Your task to perform on an android device: clear history in the chrome app Image 0: 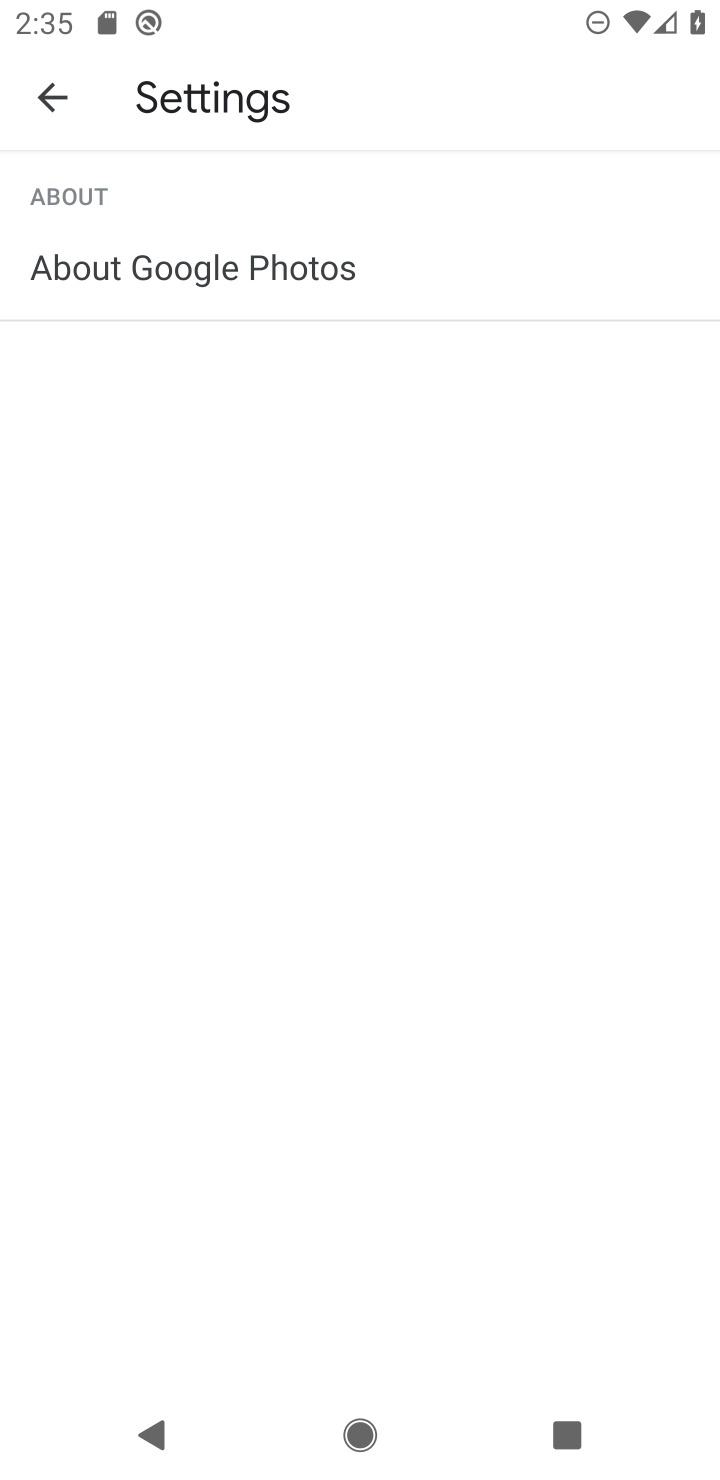
Step 0: press home button
Your task to perform on an android device: clear history in the chrome app Image 1: 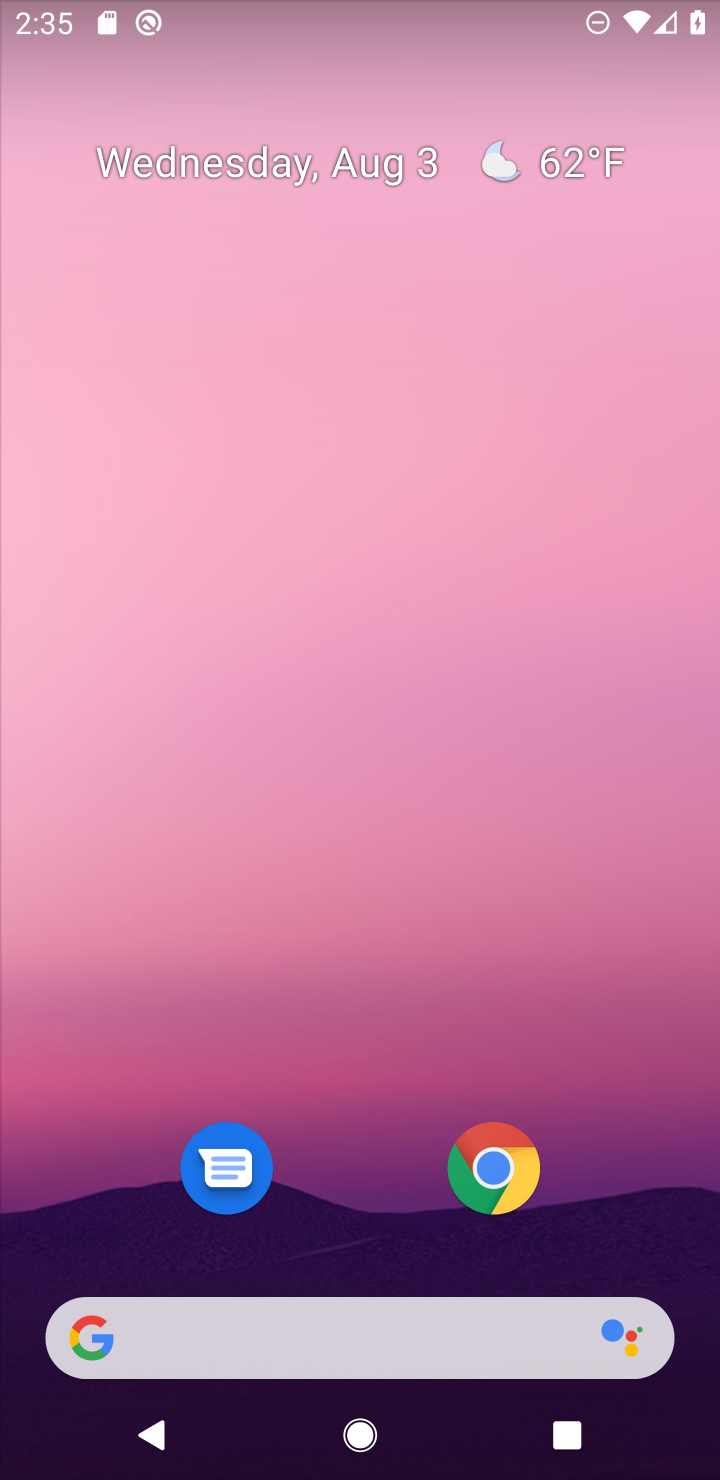
Step 1: click (479, 1173)
Your task to perform on an android device: clear history in the chrome app Image 2: 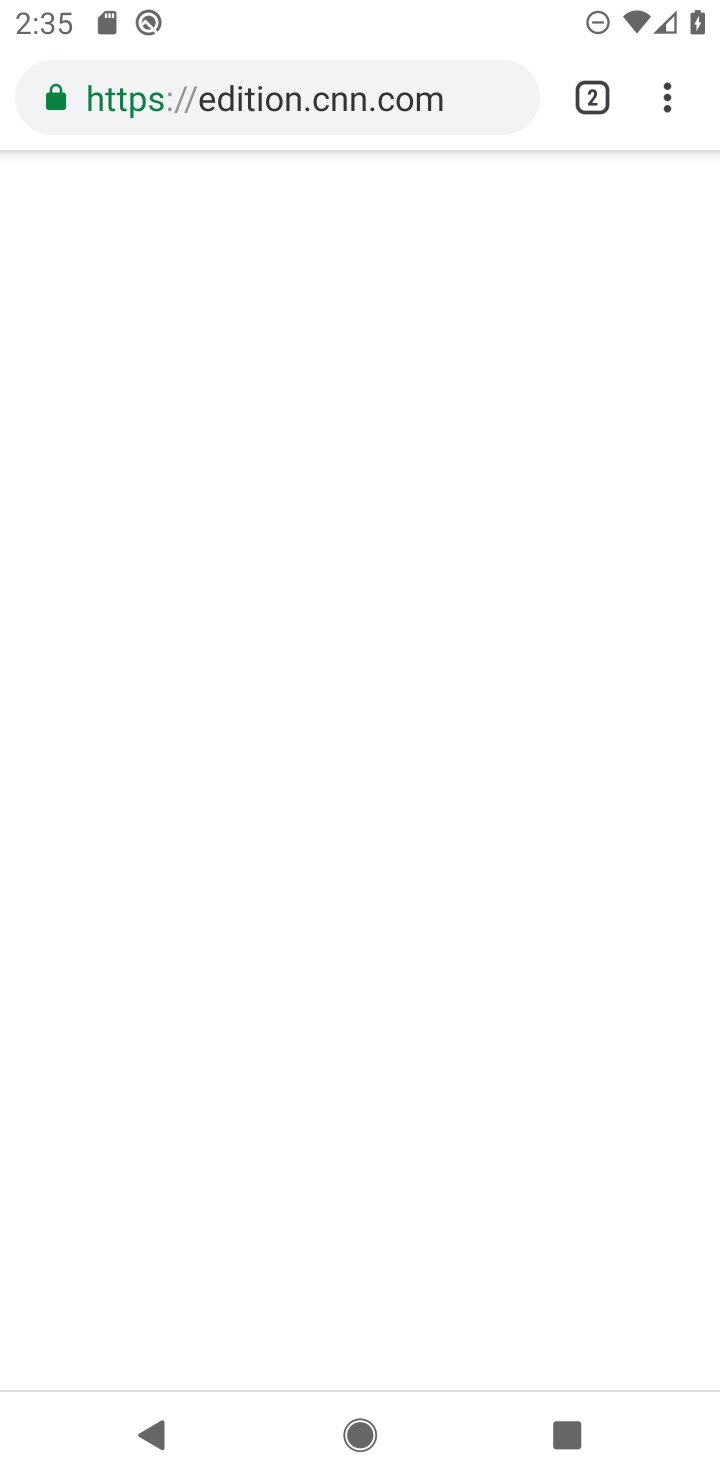
Step 2: click (657, 112)
Your task to perform on an android device: clear history in the chrome app Image 3: 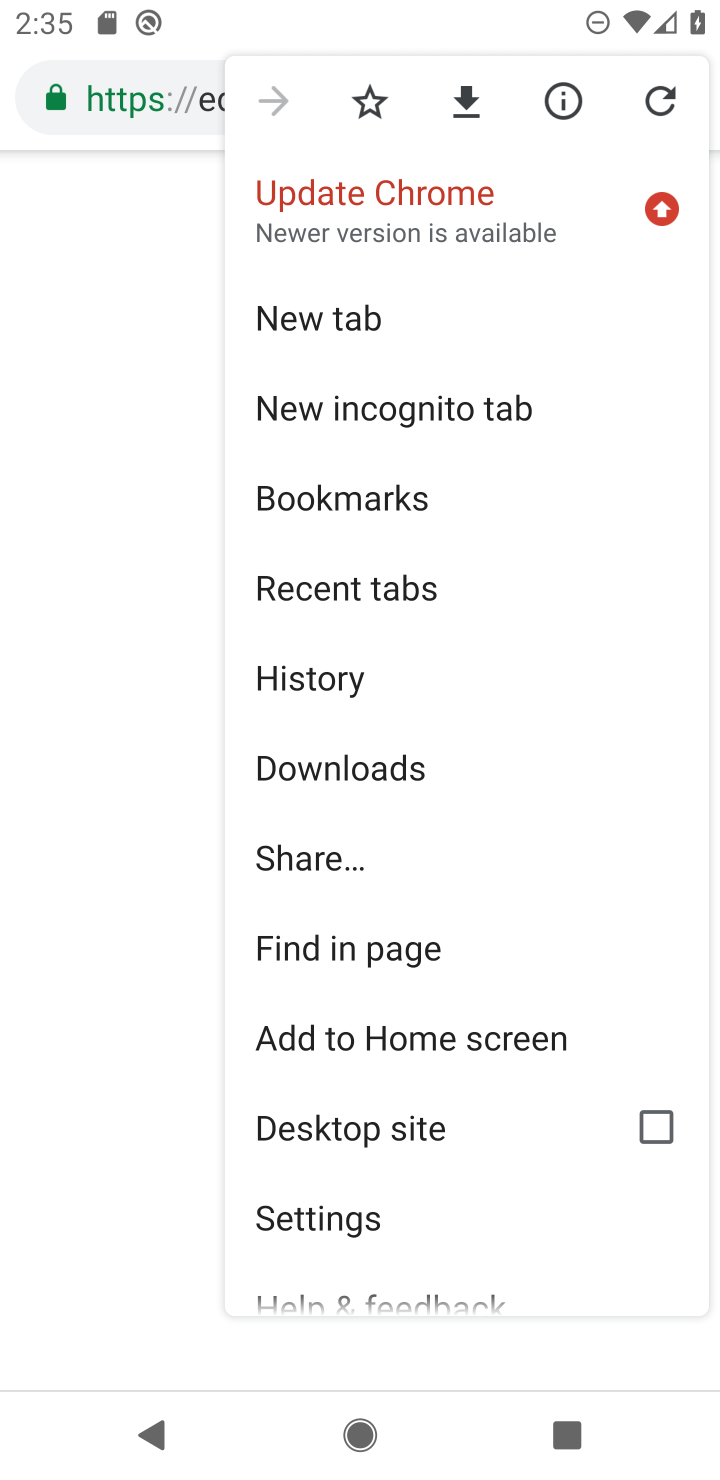
Step 3: click (323, 674)
Your task to perform on an android device: clear history in the chrome app Image 4: 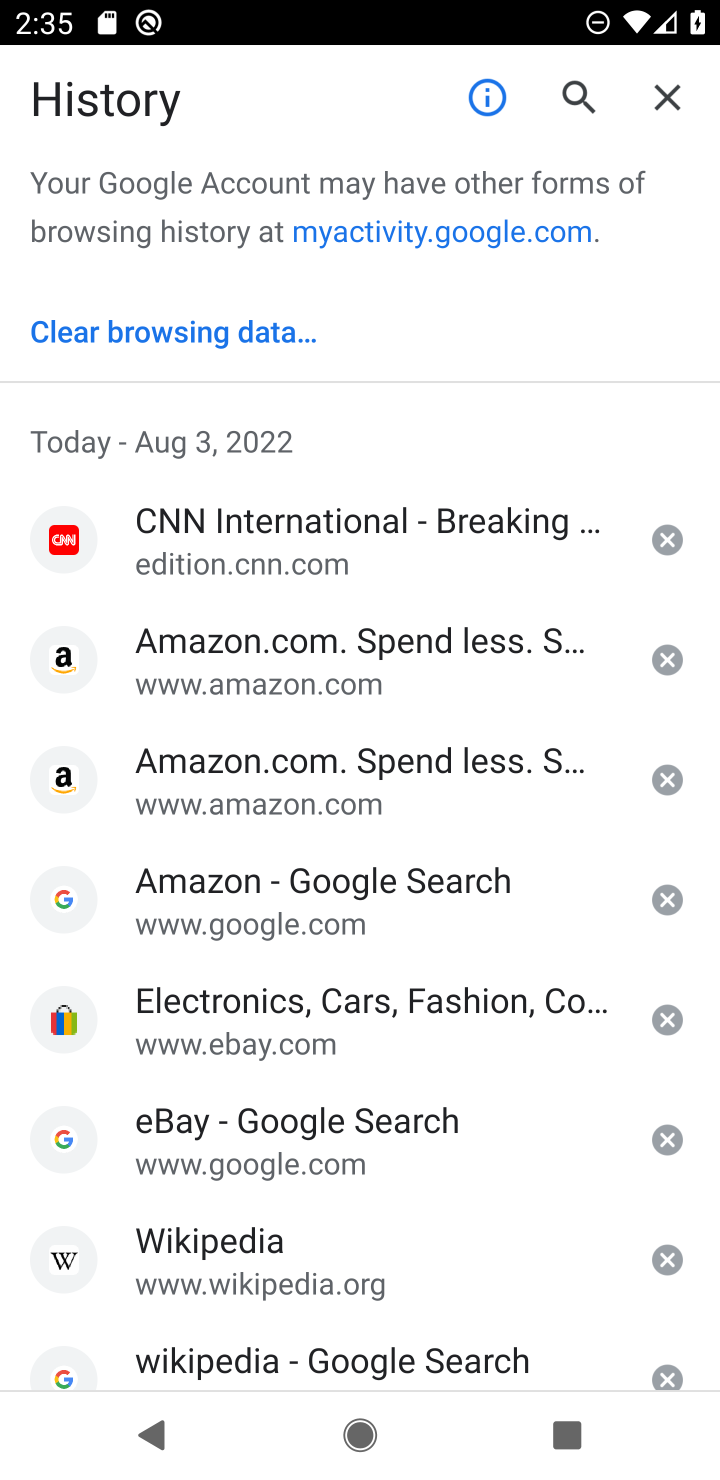
Step 4: click (163, 332)
Your task to perform on an android device: clear history in the chrome app Image 5: 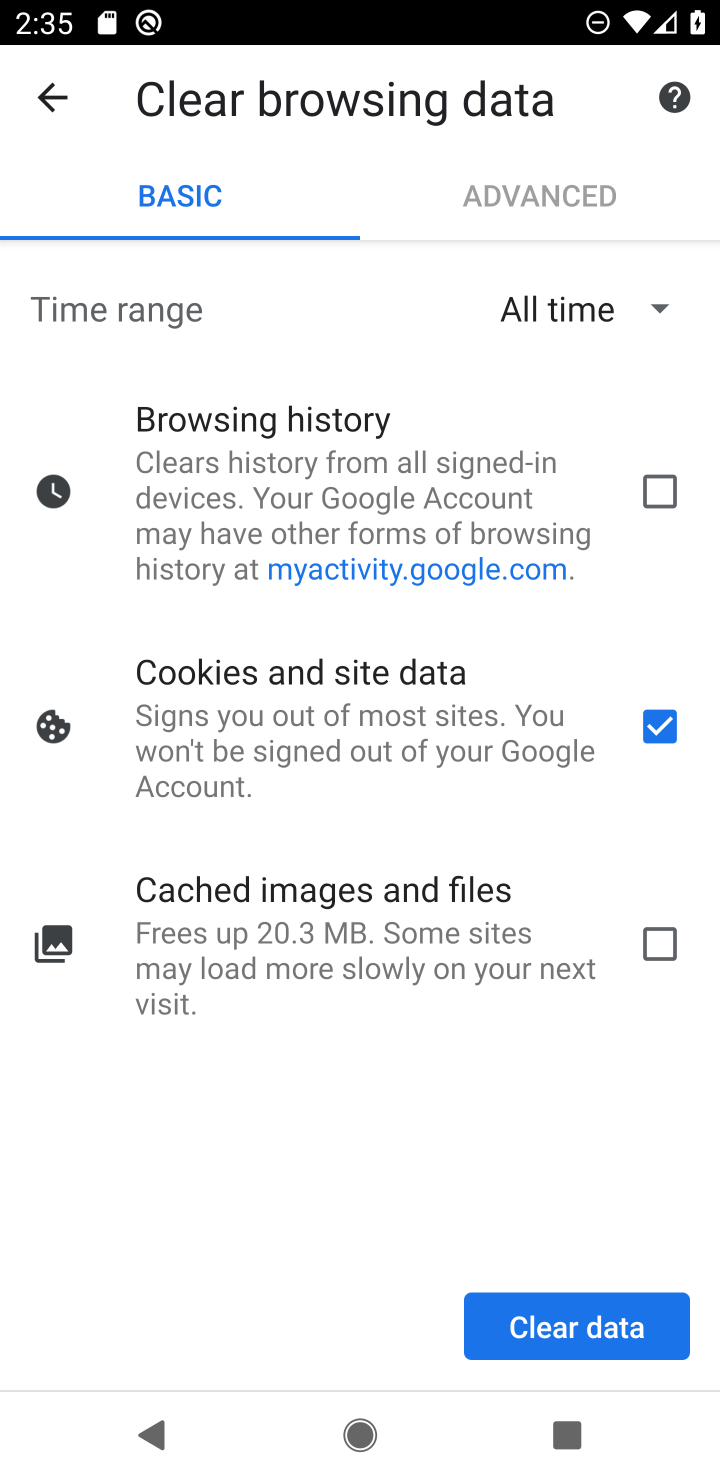
Step 5: click (648, 505)
Your task to perform on an android device: clear history in the chrome app Image 6: 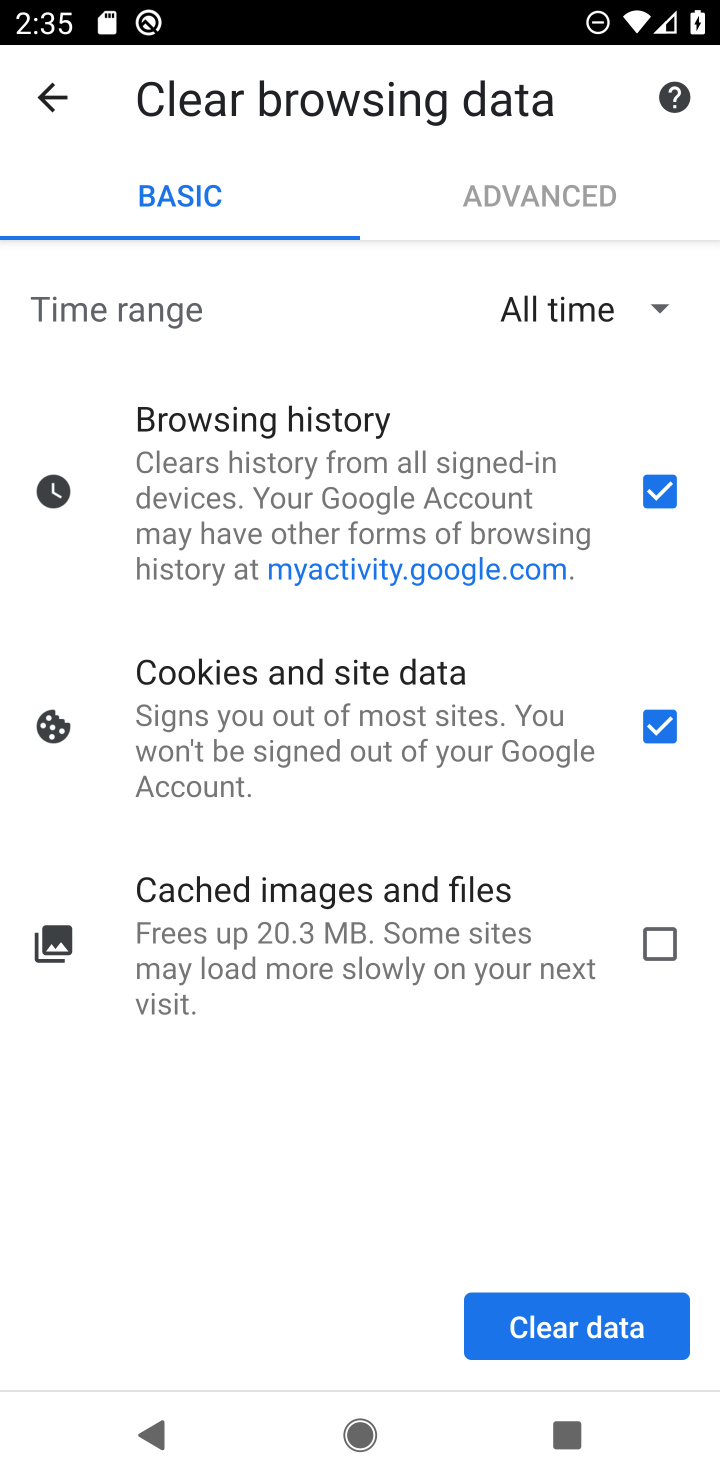
Step 6: click (655, 738)
Your task to perform on an android device: clear history in the chrome app Image 7: 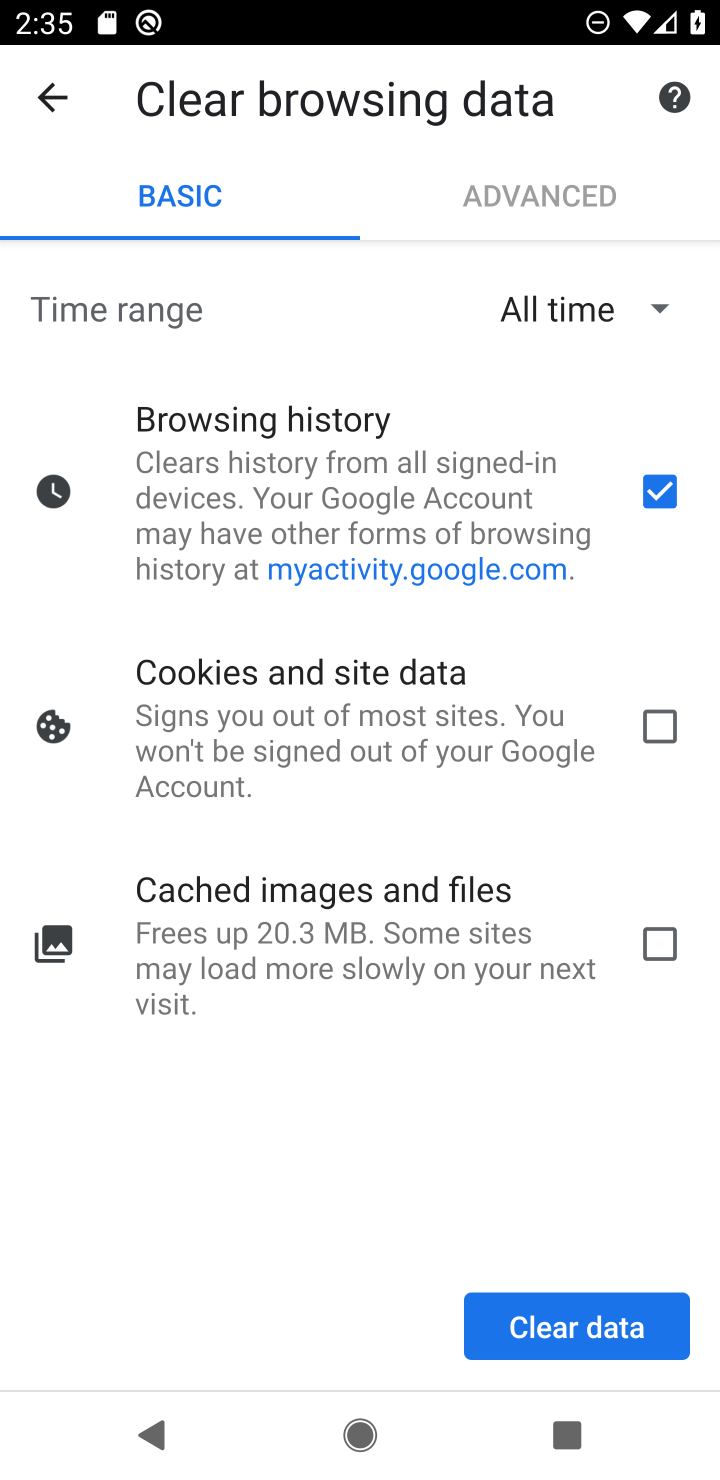
Step 7: click (580, 1331)
Your task to perform on an android device: clear history in the chrome app Image 8: 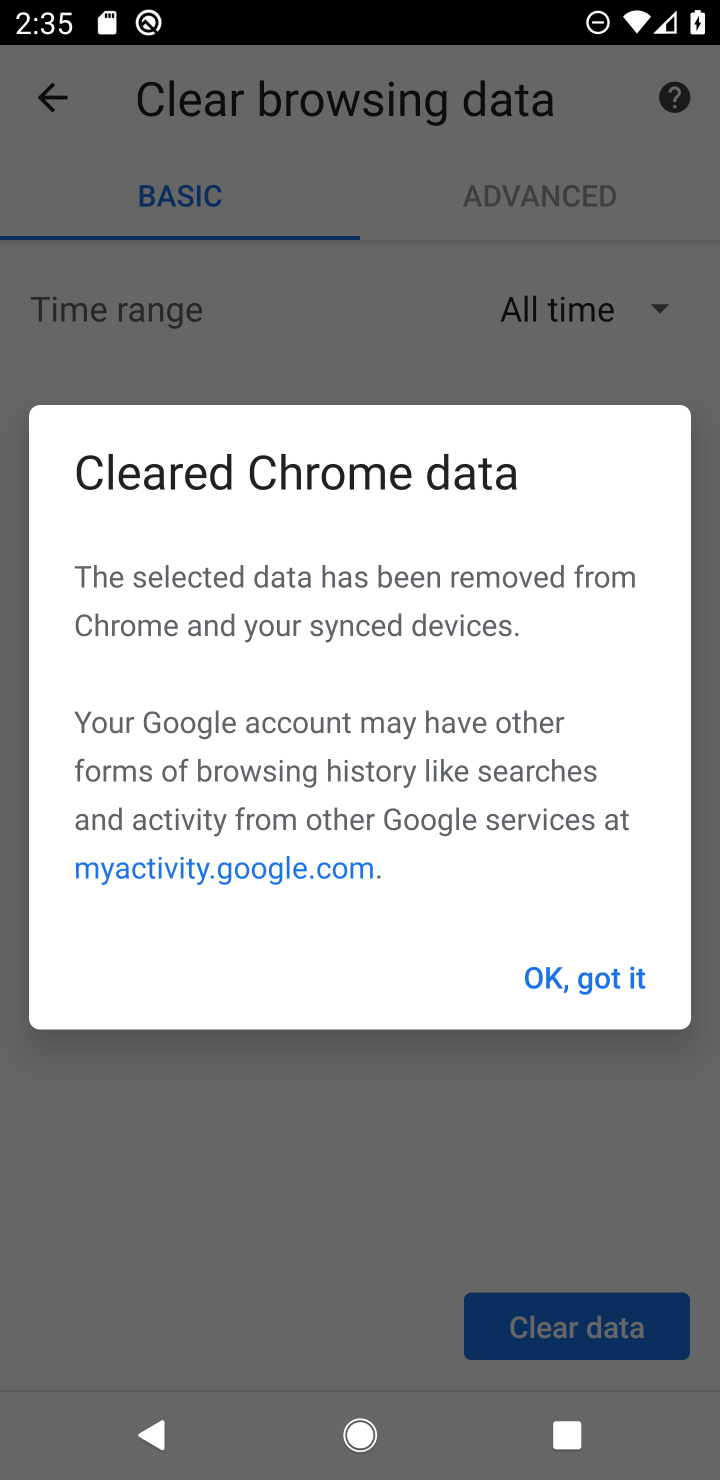
Step 8: click (578, 987)
Your task to perform on an android device: clear history in the chrome app Image 9: 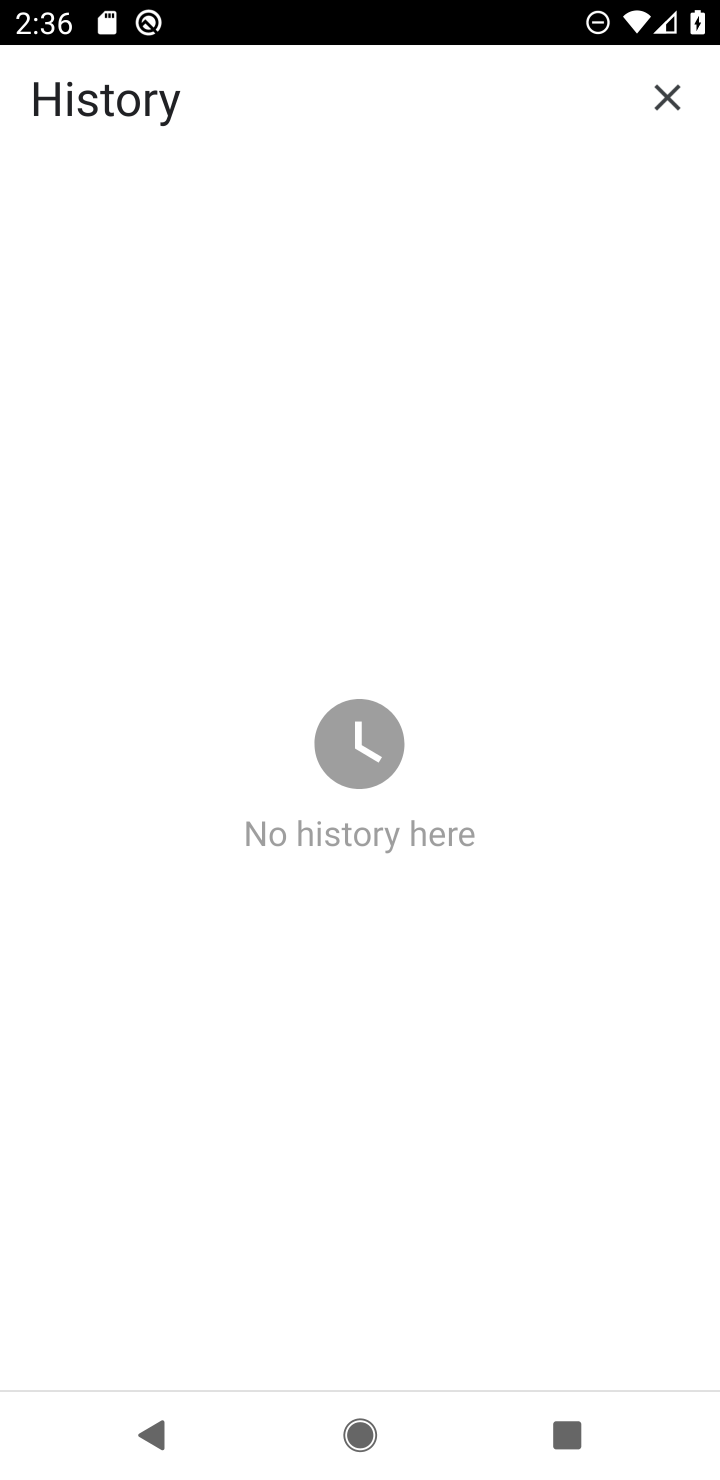
Step 9: task complete